Your task to perform on an android device: When is my next meeting? Image 0: 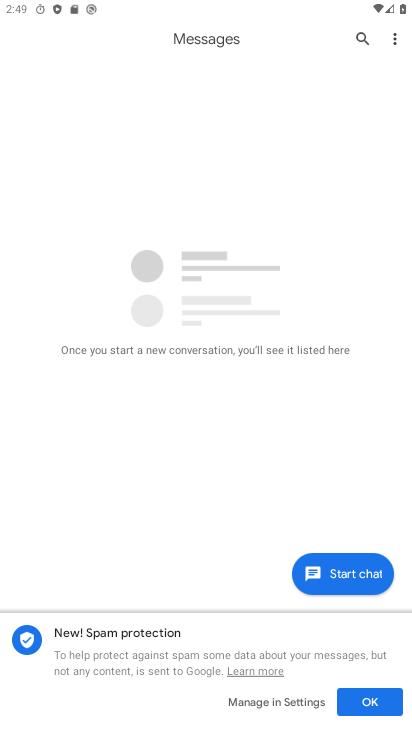
Step 0: press home button
Your task to perform on an android device: When is my next meeting? Image 1: 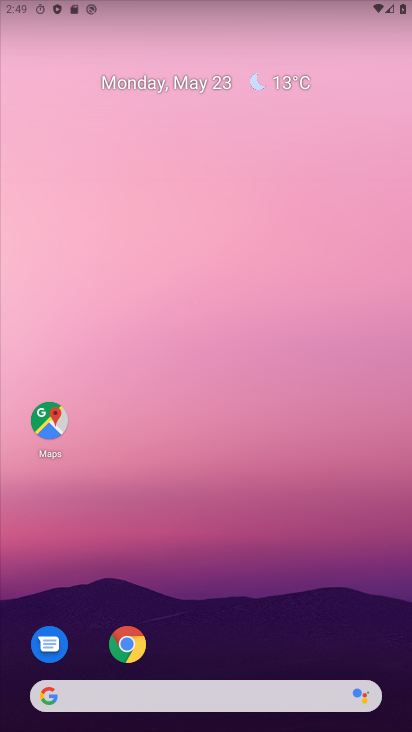
Step 1: drag from (230, 662) to (189, 30)
Your task to perform on an android device: When is my next meeting? Image 2: 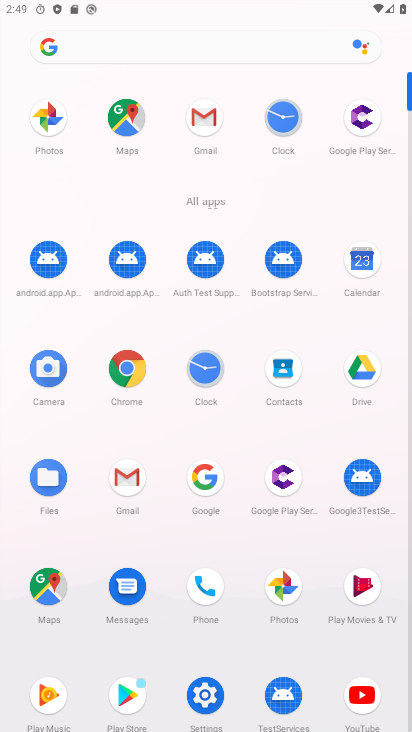
Step 2: click (357, 276)
Your task to perform on an android device: When is my next meeting? Image 3: 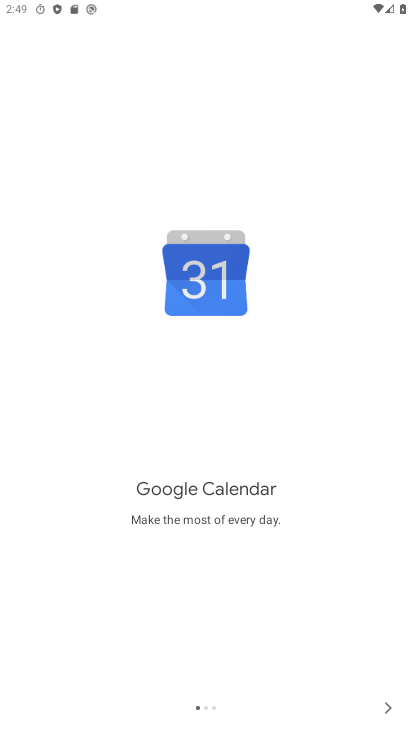
Step 3: click (392, 708)
Your task to perform on an android device: When is my next meeting? Image 4: 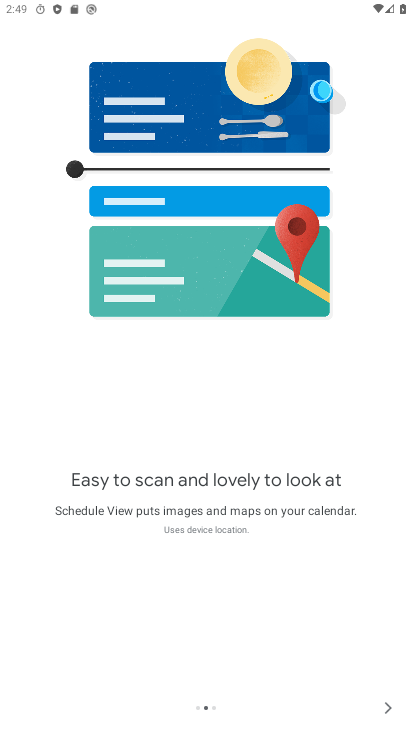
Step 4: click (391, 704)
Your task to perform on an android device: When is my next meeting? Image 5: 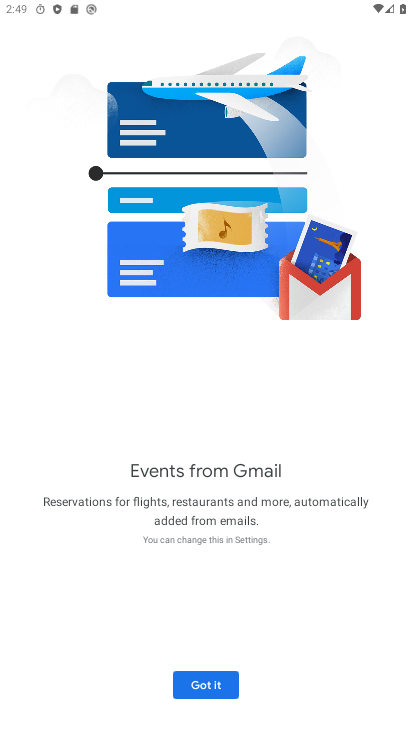
Step 5: press home button
Your task to perform on an android device: When is my next meeting? Image 6: 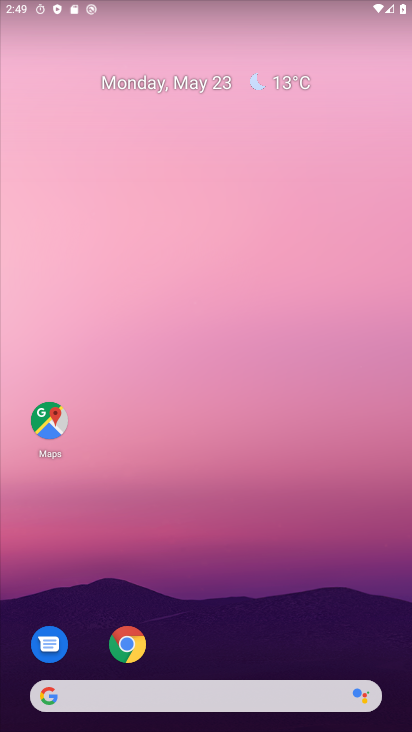
Step 6: drag from (174, 663) to (168, 4)
Your task to perform on an android device: When is my next meeting? Image 7: 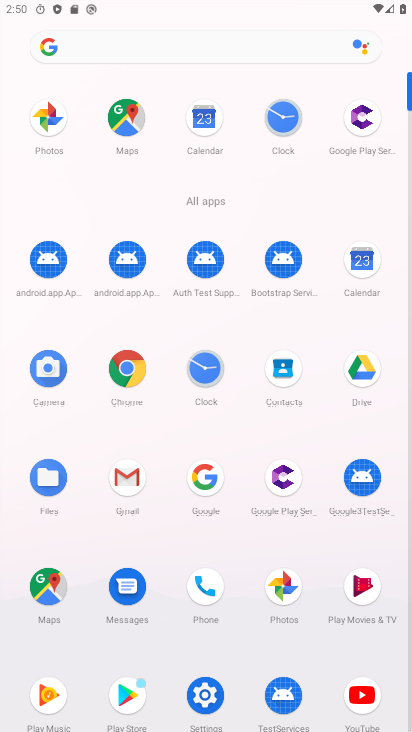
Step 7: click (207, 120)
Your task to perform on an android device: When is my next meeting? Image 8: 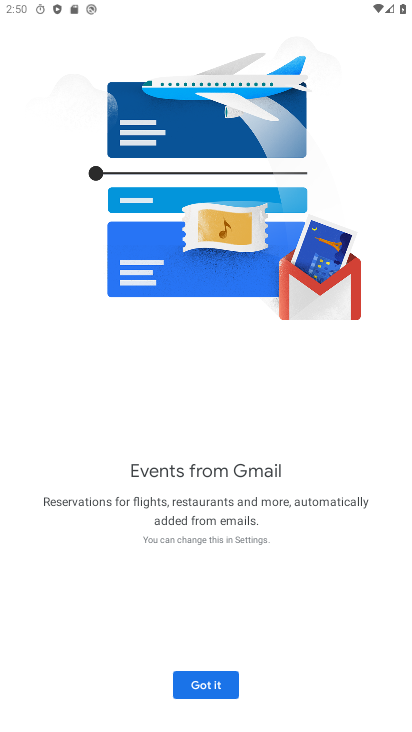
Step 8: click (202, 688)
Your task to perform on an android device: When is my next meeting? Image 9: 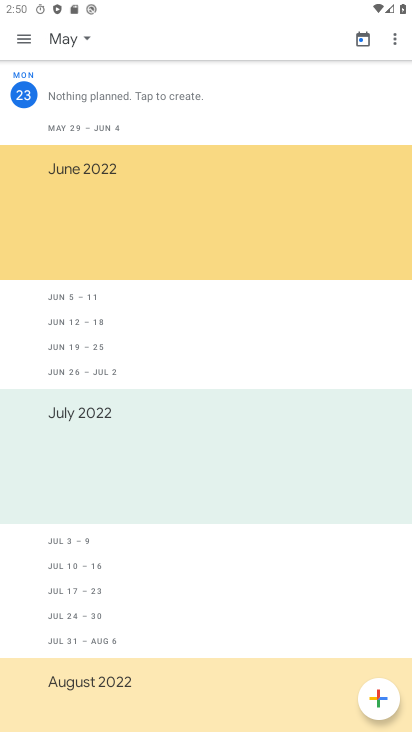
Step 9: task complete